Your task to perform on an android device: Open maps Image 0: 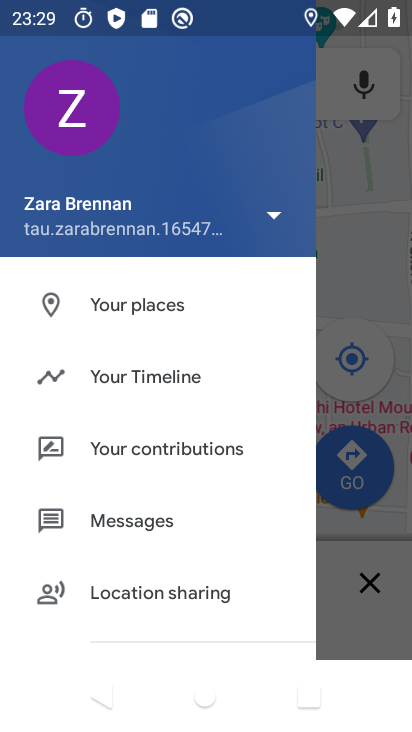
Step 0: press home button
Your task to perform on an android device: Open maps Image 1: 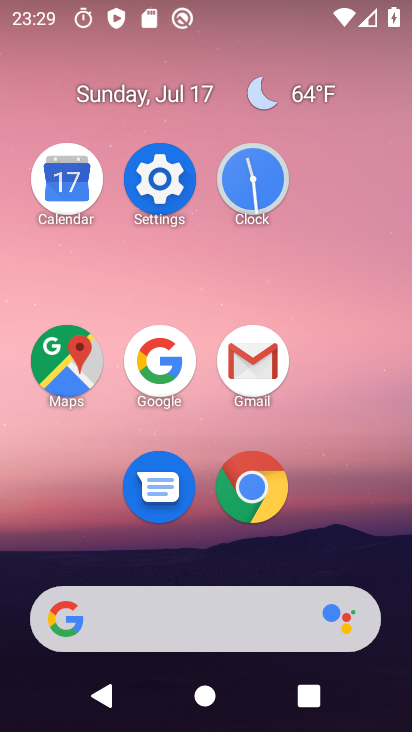
Step 1: click (54, 368)
Your task to perform on an android device: Open maps Image 2: 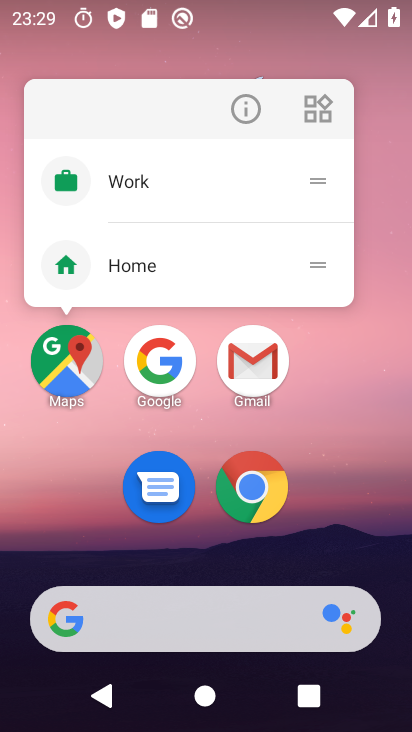
Step 2: click (54, 368)
Your task to perform on an android device: Open maps Image 3: 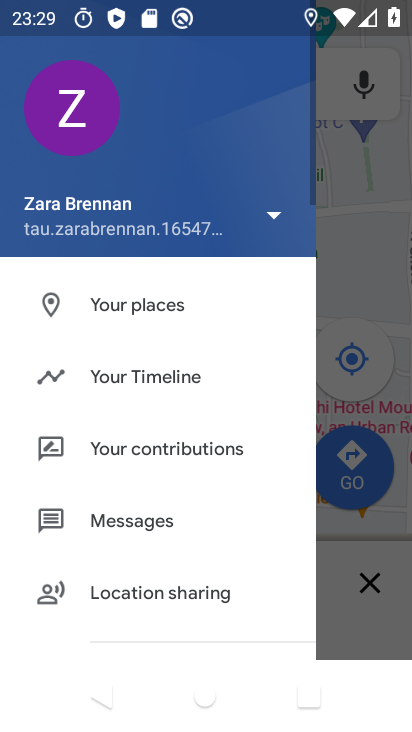
Step 3: task complete